Your task to perform on an android device: Go to Google maps Image 0: 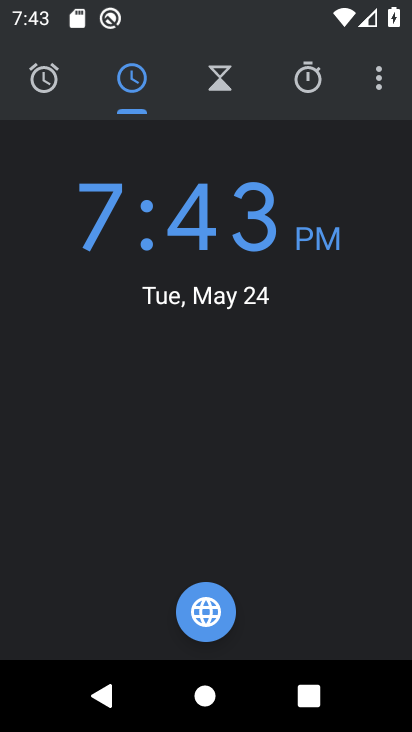
Step 0: press home button
Your task to perform on an android device: Go to Google maps Image 1: 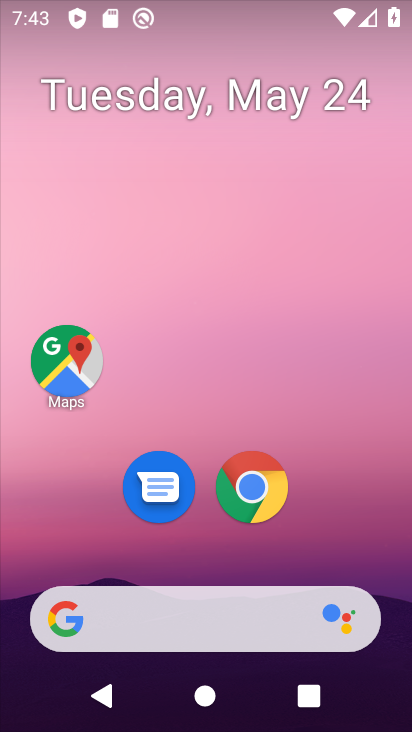
Step 1: click (70, 347)
Your task to perform on an android device: Go to Google maps Image 2: 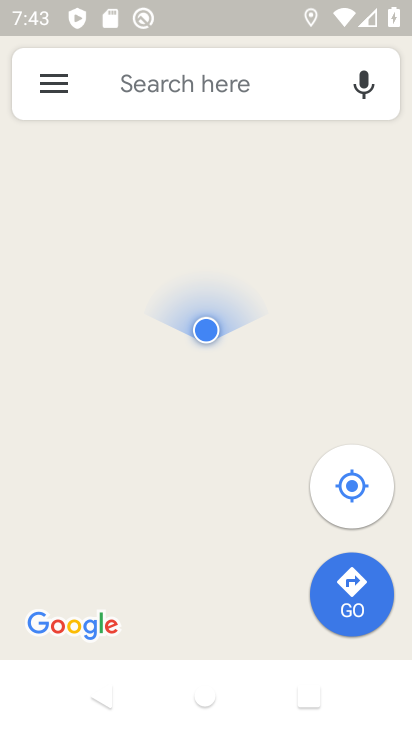
Step 2: task complete